Your task to perform on an android device: See recent photos Image 0: 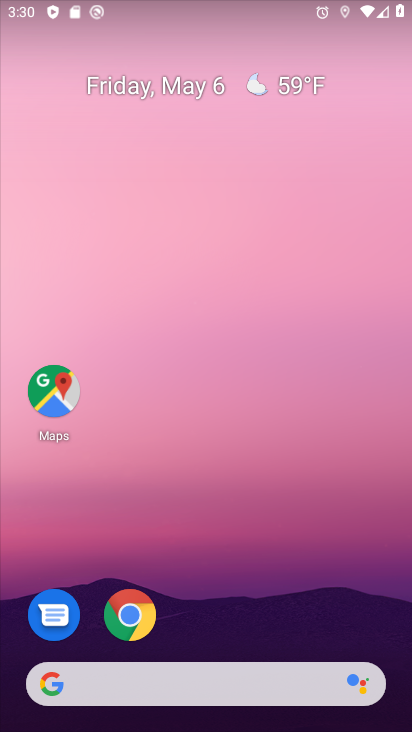
Step 0: drag from (297, 587) to (311, 42)
Your task to perform on an android device: See recent photos Image 1: 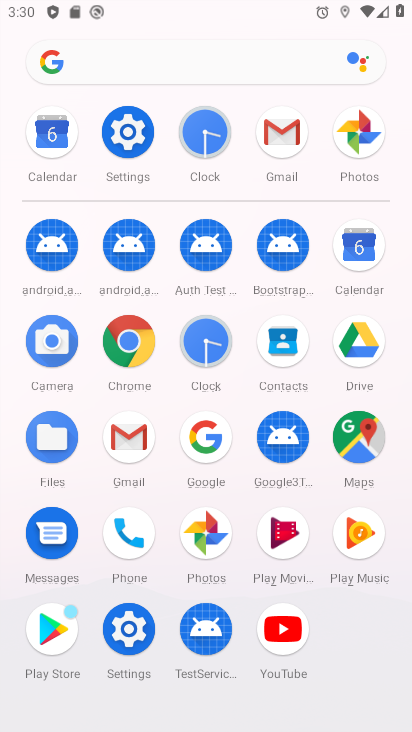
Step 1: click (208, 535)
Your task to perform on an android device: See recent photos Image 2: 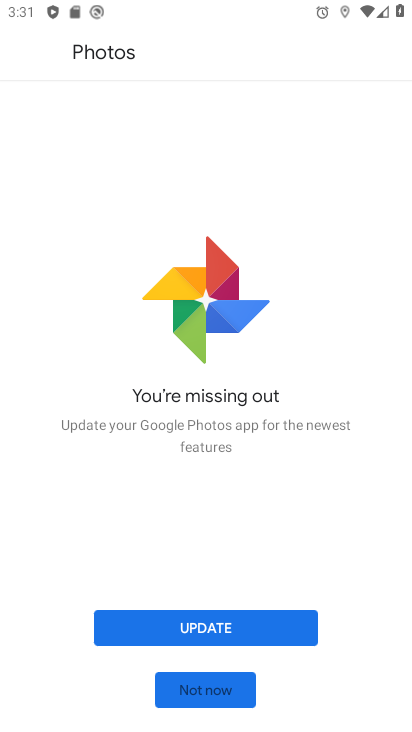
Step 2: click (214, 689)
Your task to perform on an android device: See recent photos Image 3: 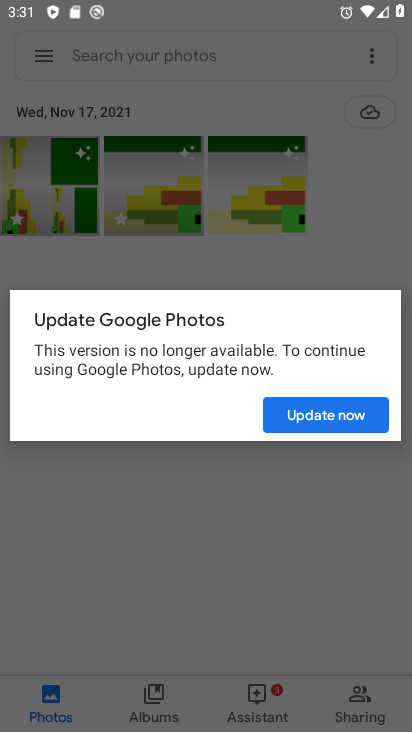
Step 3: click (344, 418)
Your task to perform on an android device: See recent photos Image 4: 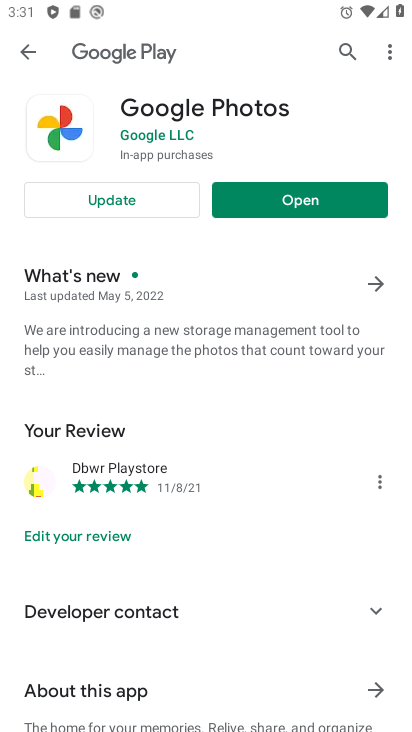
Step 4: click (162, 207)
Your task to perform on an android device: See recent photos Image 5: 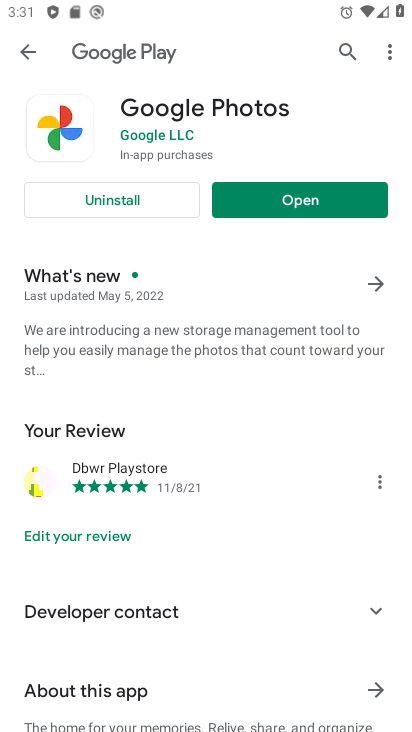
Step 5: click (327, 212)
Your task to perform on an android device: See recent photos Image 6: 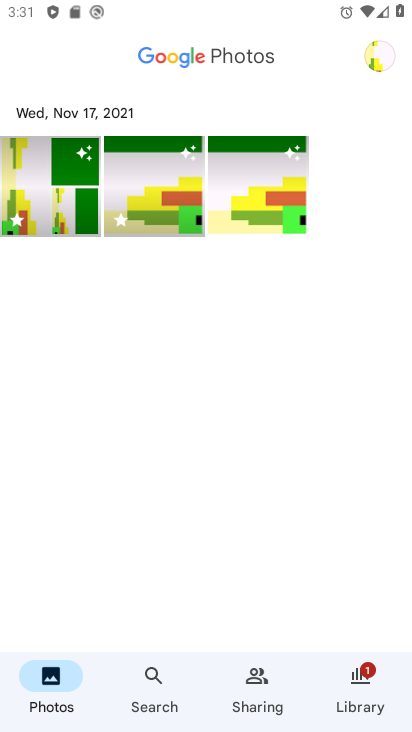
Step 6: click (358, 696)
Your task to perform on an android device: See recent photos Image 7: 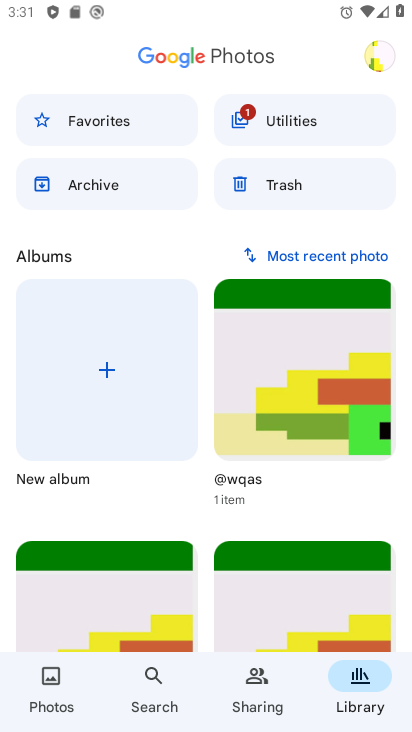
Step 7: click (312, 259)
Your task to perform on an android device: See recent photos Image 8: 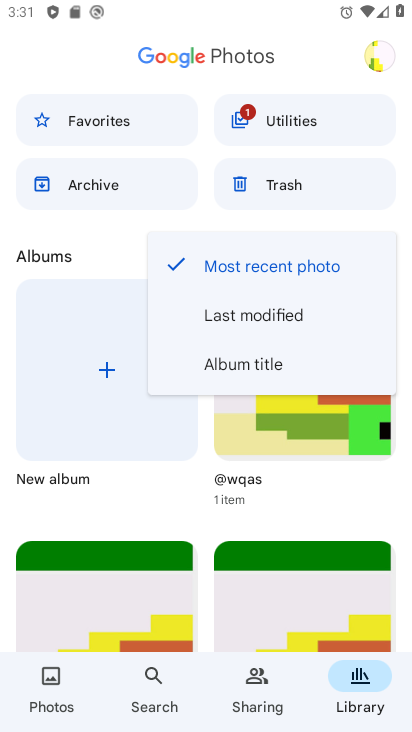
Step 8: click (309, 260)
Your task to perform on an android device: See recent photos Image 9: 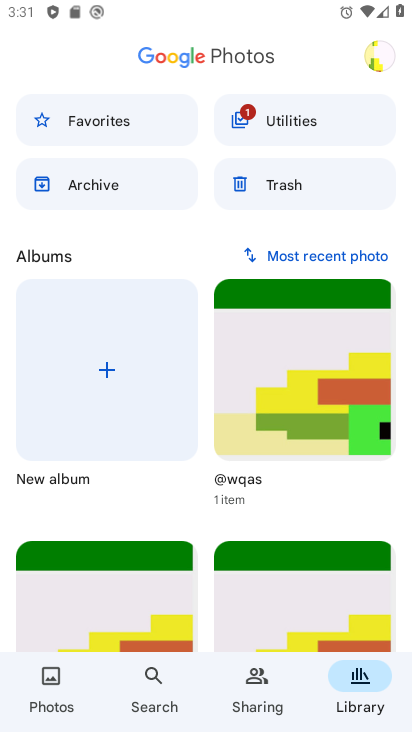
Step 9: task complete